Your task to perform on an android device: Go to settings Image 0: 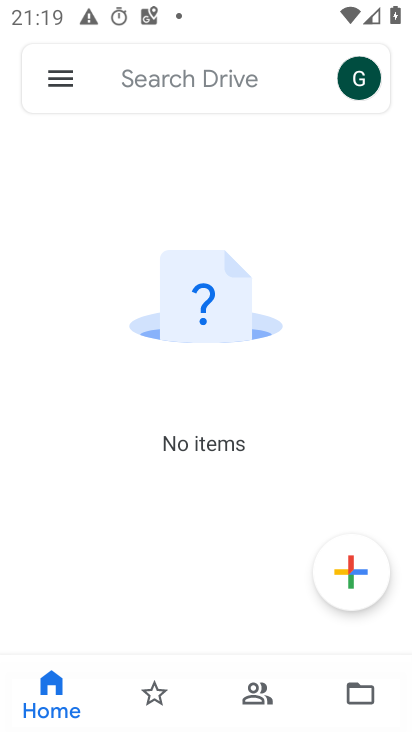
Step 0: press home button
Your task to perform on an android device: Go to settings Image 1: 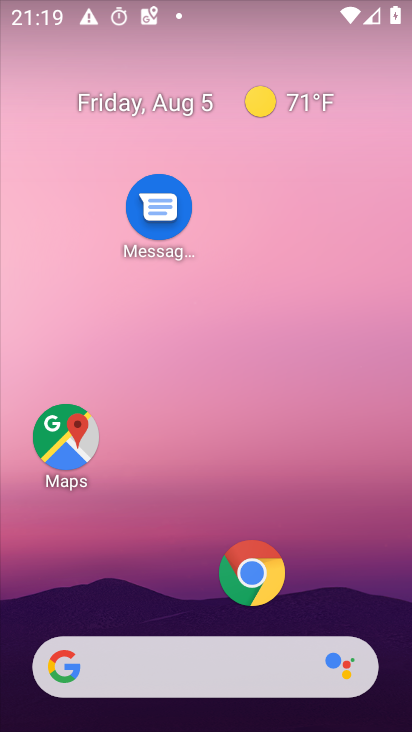
Step 1: drag from (206, 613) to (210, 64)
Your task to perform on an android device: Go to settings Image 2: 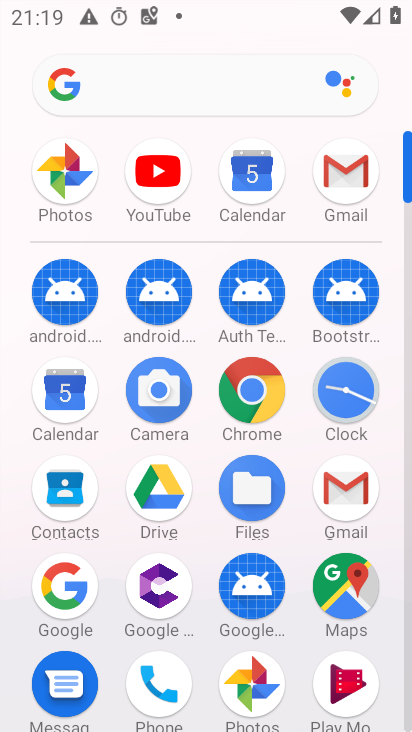
Step 2: drag from (204, 652) to (196, 129)
Your task to perform on an android device: Go to settings Image 3: 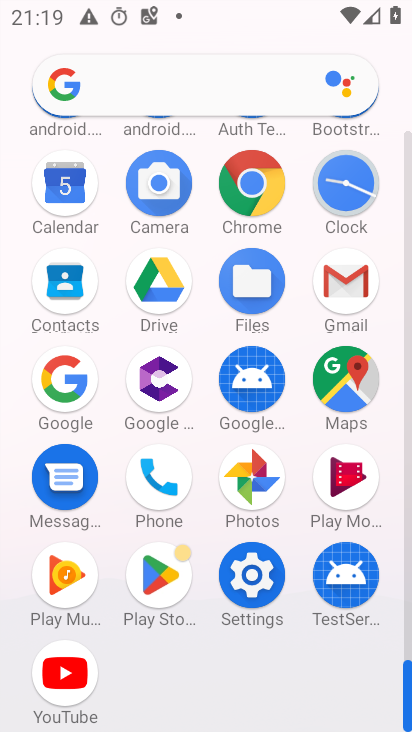
Step 3: click (249, 568)
Your task to perform on an android device: Go to settings Image 4: 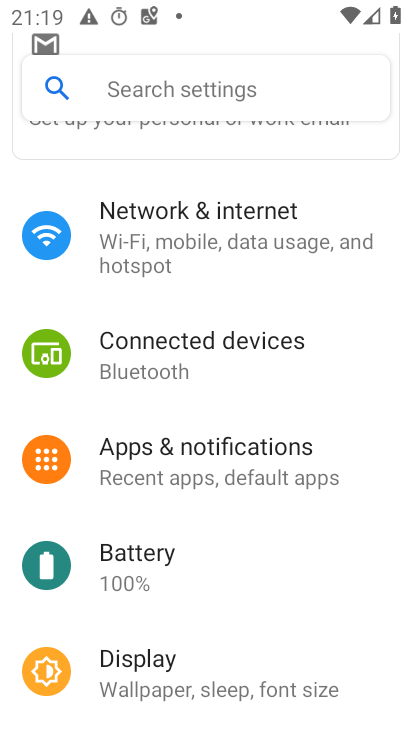
Step 4: task complete